Your task to perform on an android device: empty trash in the gmail app Image 0: 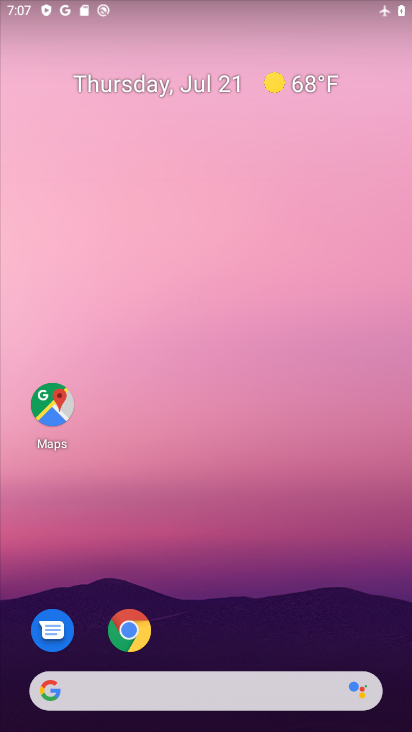
Step 0: drag from (272, 617) to (291, 57)
Your task to perform on an android device: empty trash in the gmail app Image 1: 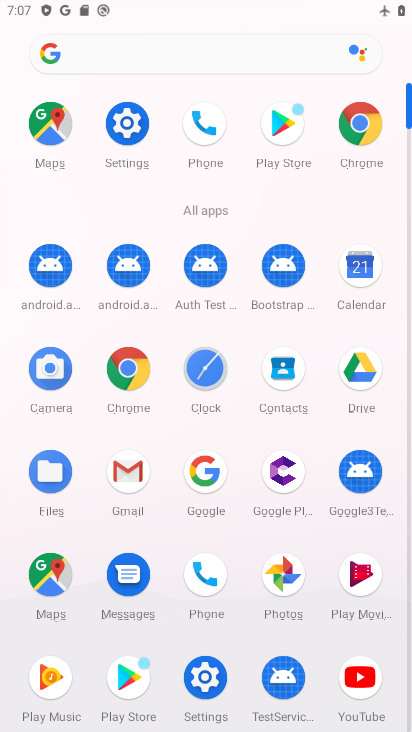
Step 1: click (113, 465)
Your task to perform on an android device: empty trash in the gmail app Image 2: 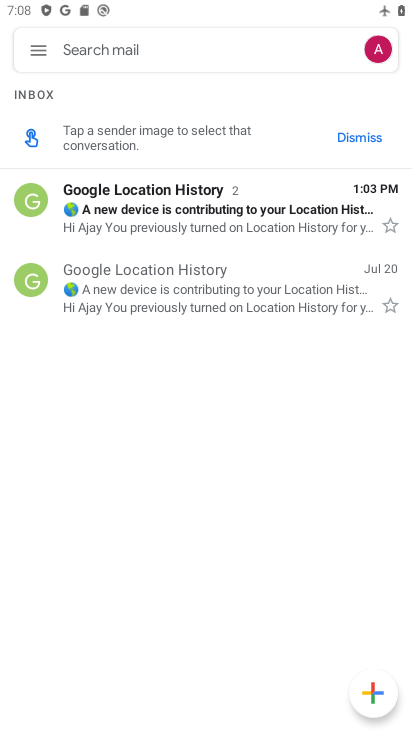
Step 2: click (43, 54)
Your task to perform on an android device: empty trash in the gmail app Image 3: 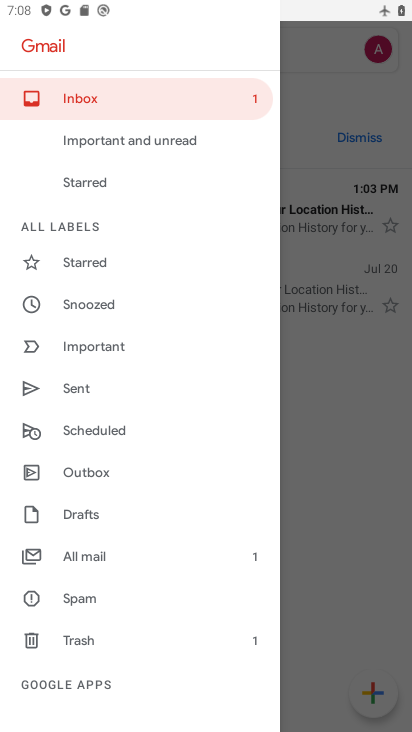
Step 3: click (87, 640)
Your task to perform on an android device: empty trash in the gmail app Image 4: 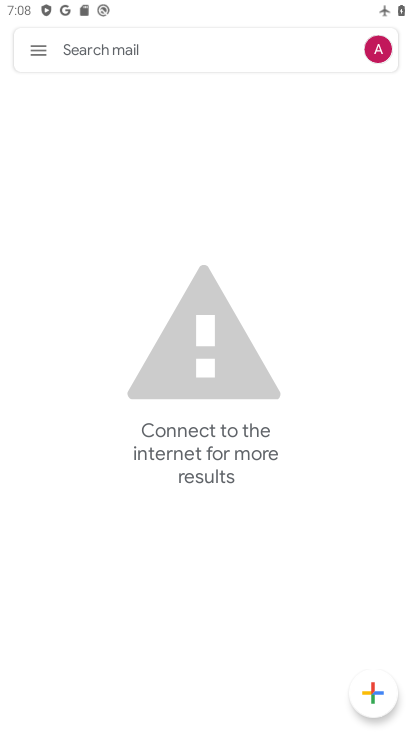
Step 4: task complete